Your task to perform on an android device: turn off improve location accuracy Image 0: 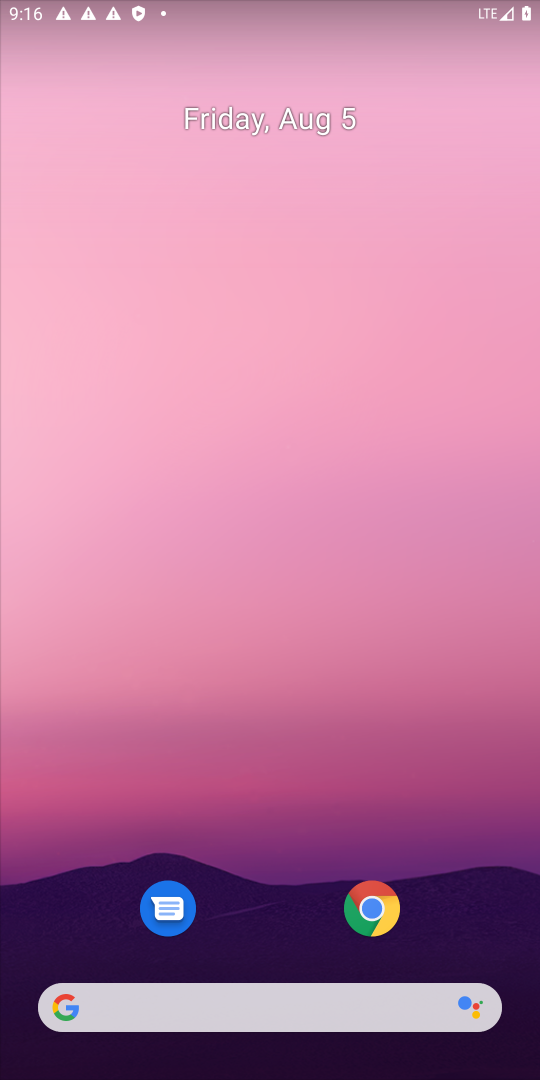
Step 0: drag from (476, 886) to (408, 218)
Your task to perform on an android device: turn off improve location accuracy Image 1: 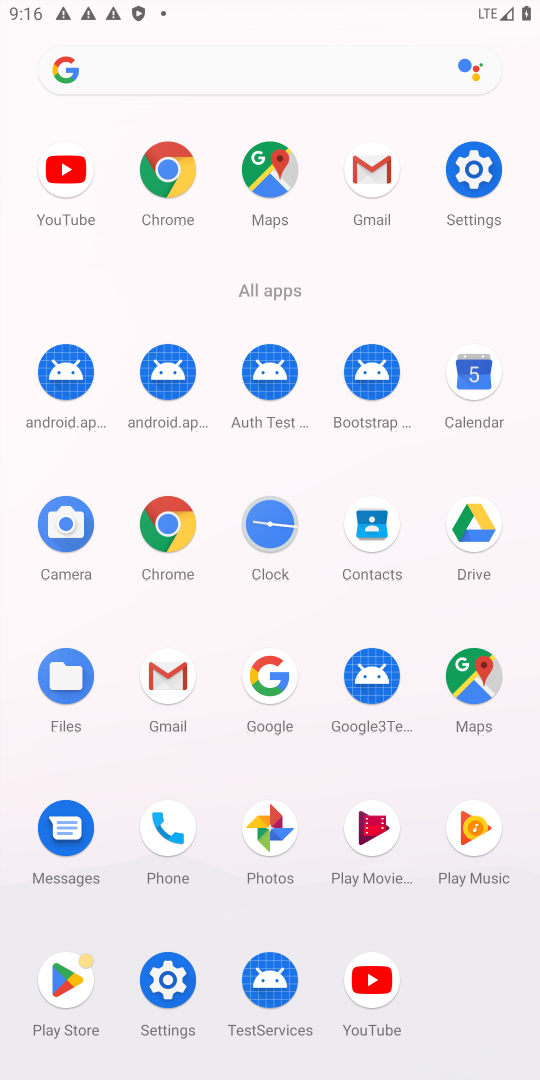
Step 1: click (476, 180)
Your task to perform on an android device: turn off improve location accuracy Image 2: 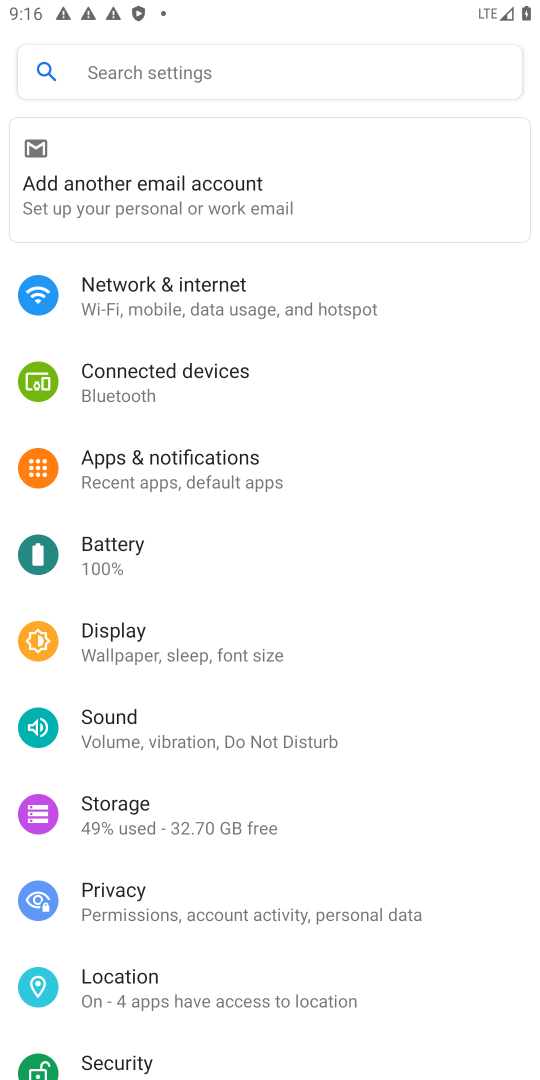
Step 2: click (207, 996)
Your task to perform on an android device: turn off improve location accuracy Image 3: 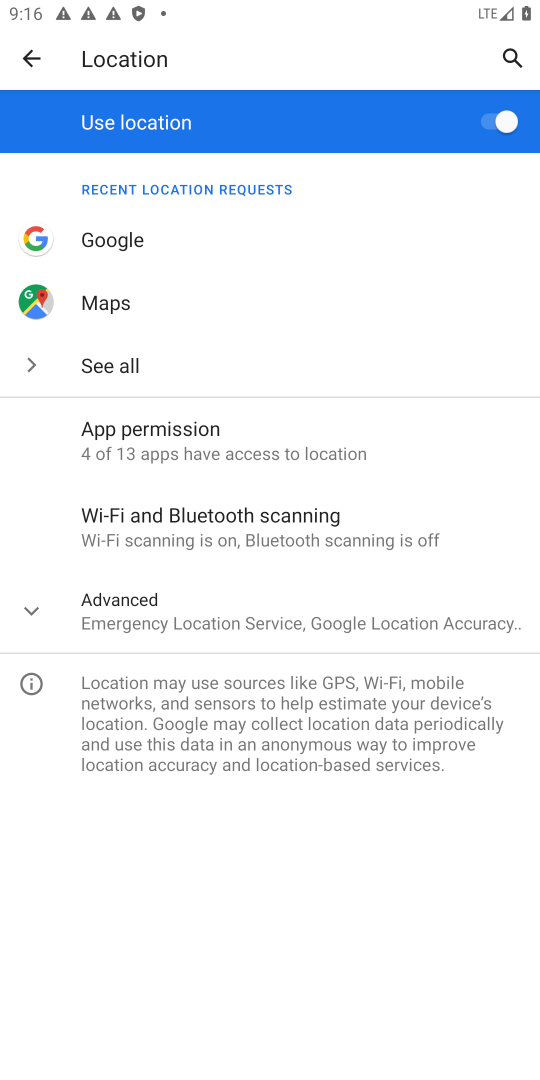
Step 3: click (376, 607)
Your task to perform on an android device: turn off improve location accuracy Image 4: 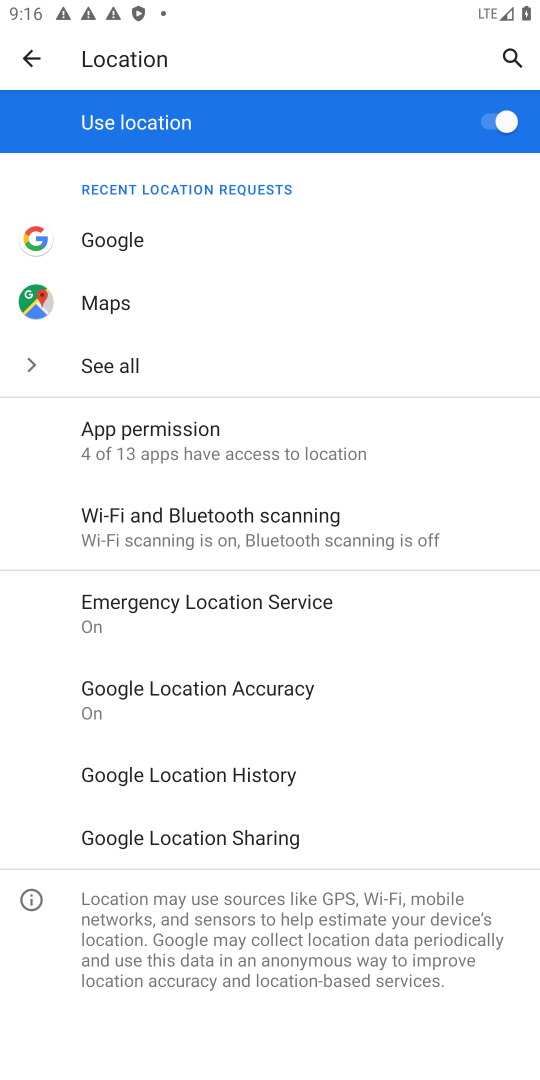
Step 4: click (390, 688)
Your task to perform on an android device: turn off improve location accuracy Image 5: 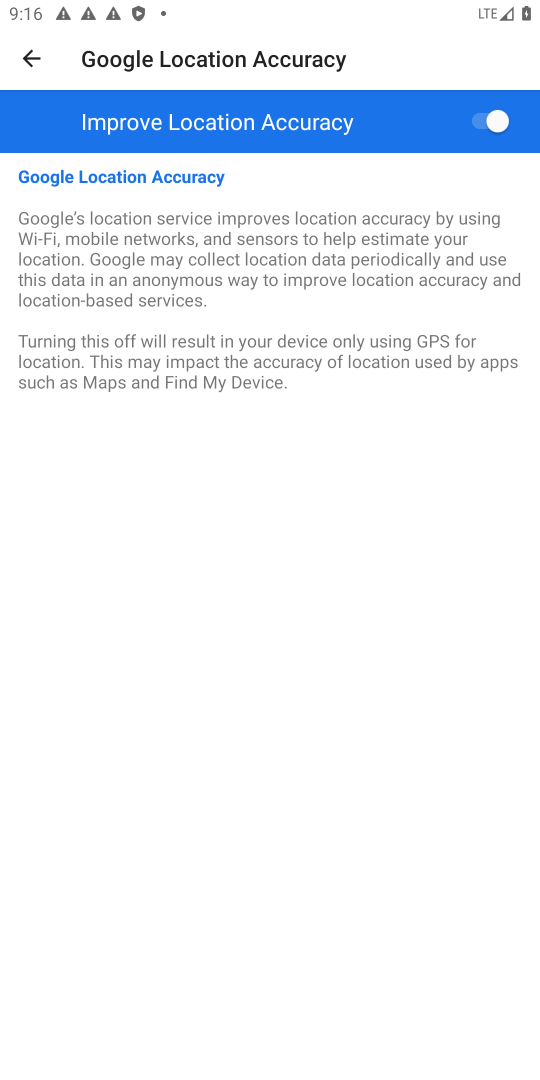
Step 5: click (488, 129)
Your task to perform on an android device: turn off improve location accuracy Image 6: 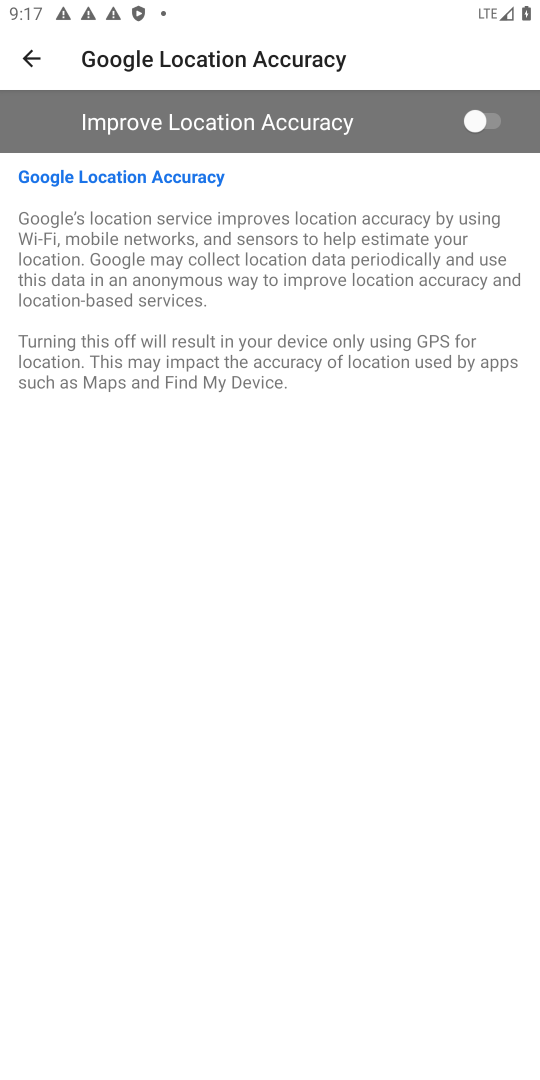
Step 6: task complete